Your task to perform on an android device: show emergency info Image 0: 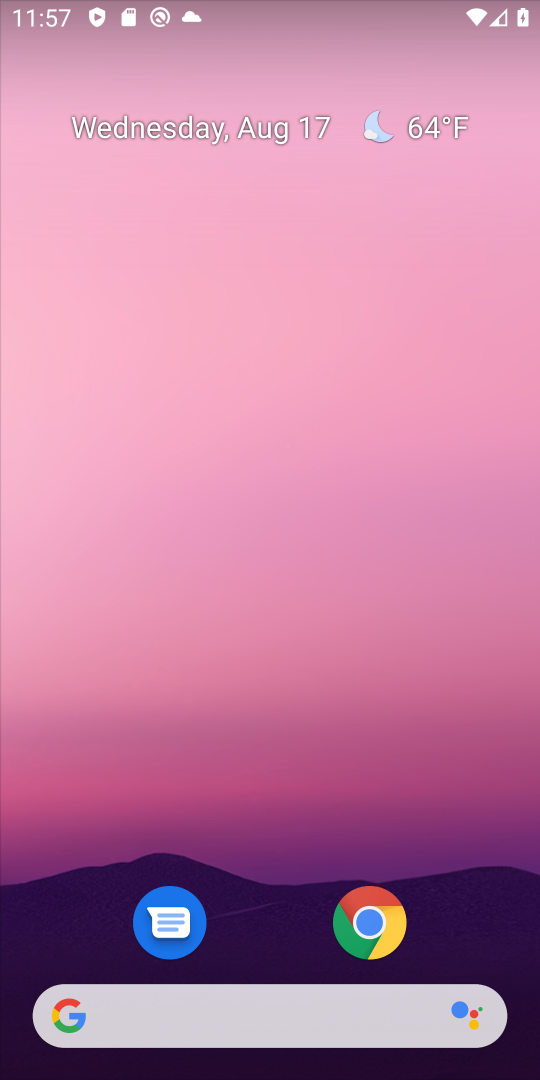
Step 0: drag from (263, 923) to (321, 323)
Your task to perform on an android device: show emergency info Image 1: 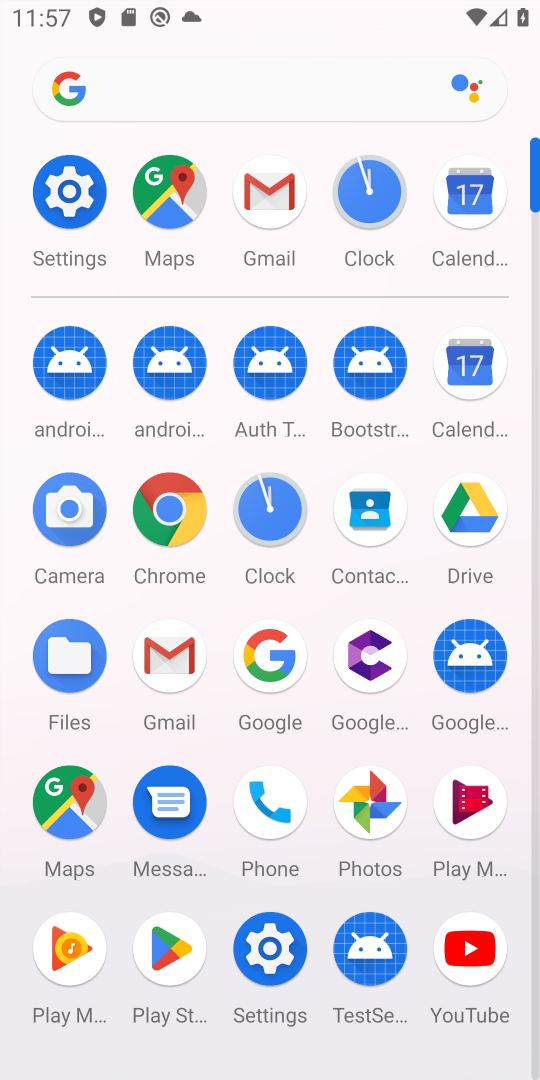
Step 1: click (68, 191)
Your task to perform on an android device: show emergency info Image 2: 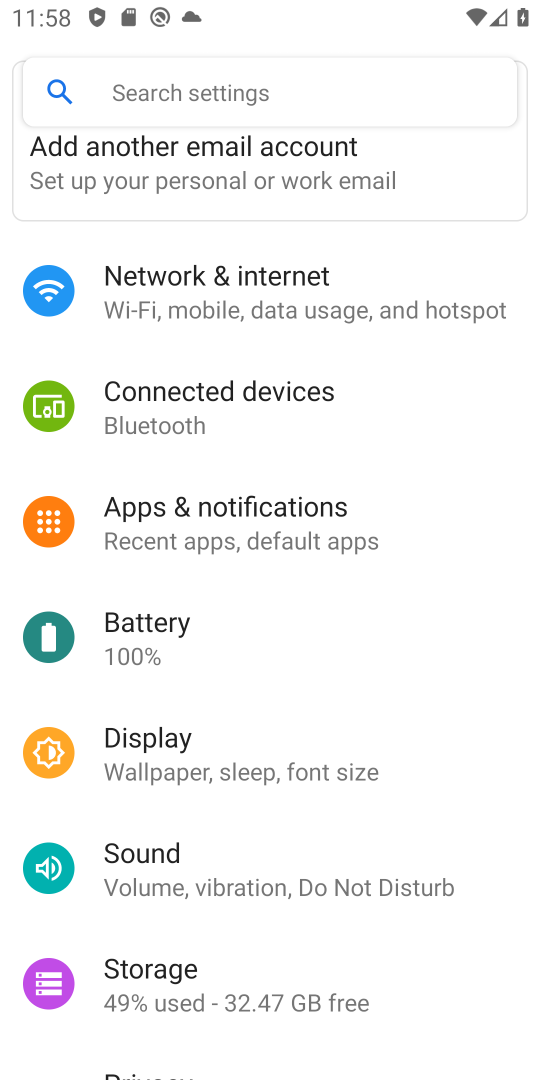
Step 2: drag from (270, 925) to (282, 386)
Your task to perform on an android device: show emergency info Image 3: 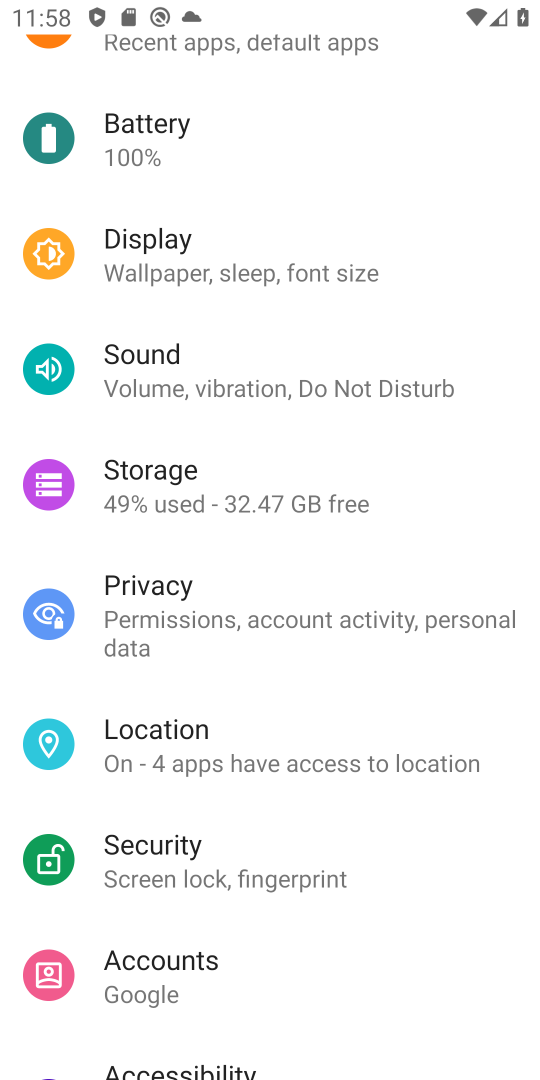
Step 3: drag from (262, 939) to (249, 455)
Your task to perform on an android device: show emergency info Image 4: 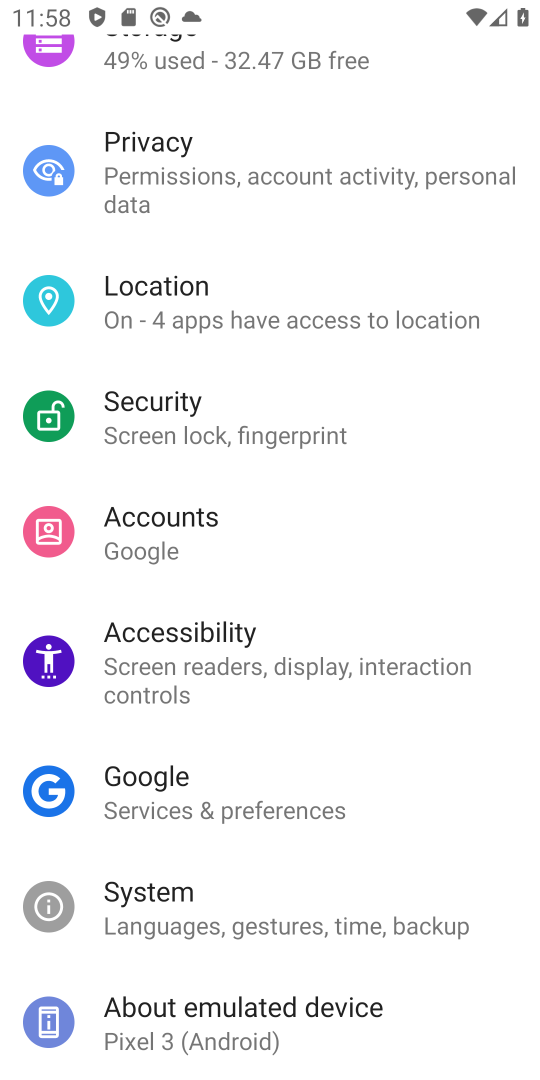
Step 4: drag from (234, 952) to (207, 381)
Your task to perform on an android device: show emergency info Image 5: 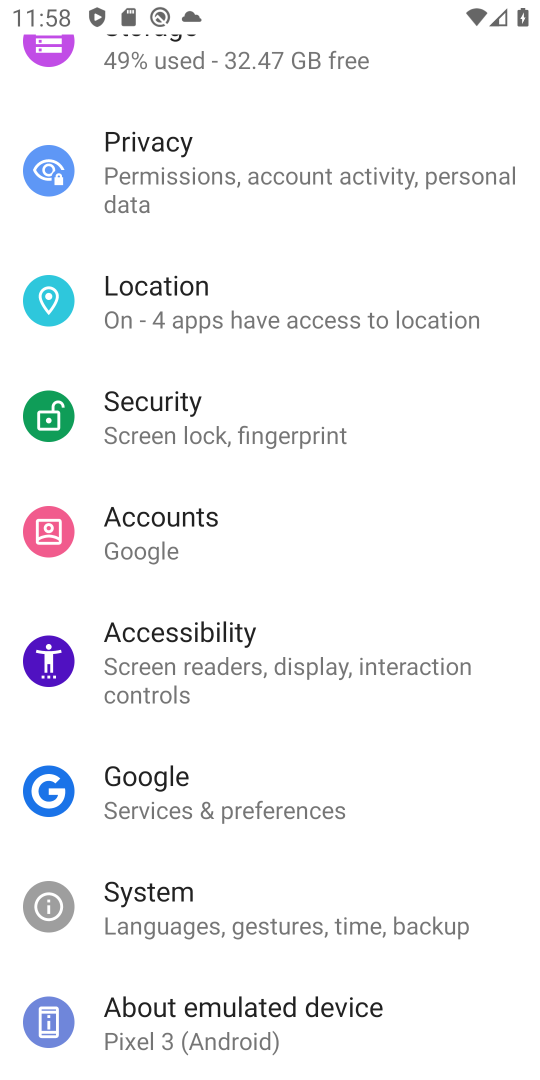
Step 5: click (198, 1015)
Your task to perform on an android device: show emergency info Image 6: 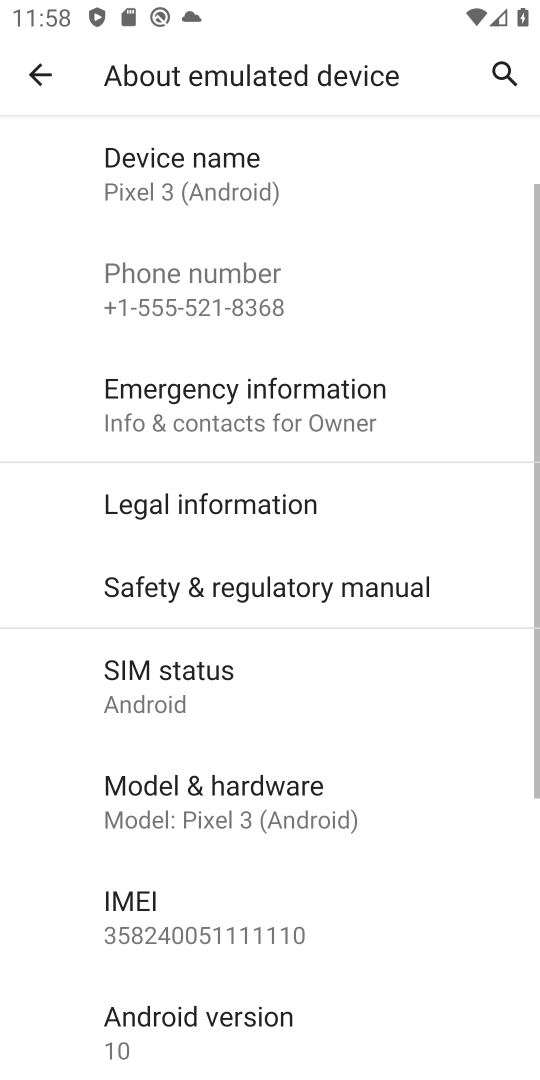
Step 6: click (219, 390)
Your task to perform on an android device: show emergency info Image 7: 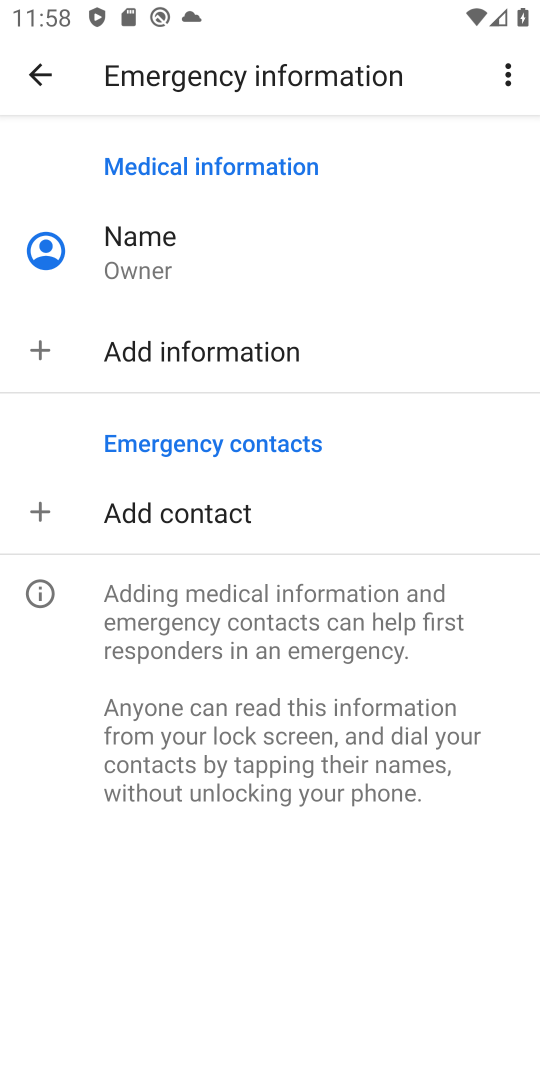
Step 7: task complete